Your task to perform on an android device: add a contact Image 0: 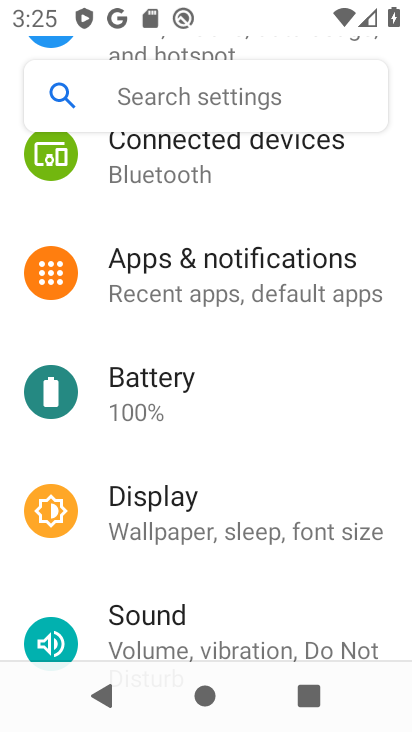
Step 0: press back button
Your task to perform on an android device: add a contact Image 1: 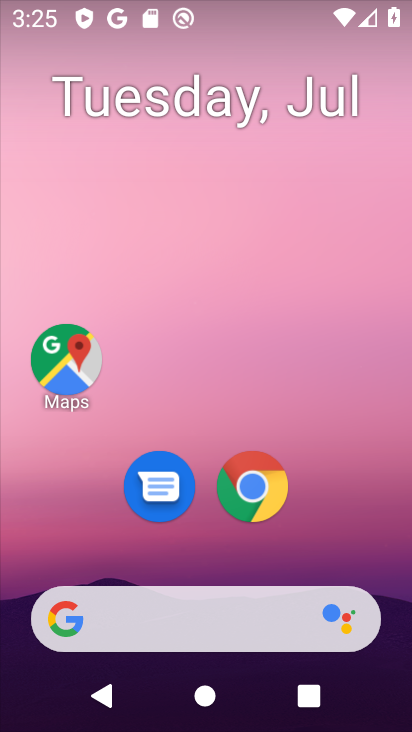
Step 1: drag from (170, 563) to (289, 9)
Your task to perform on an android device: add a contact Image 2: 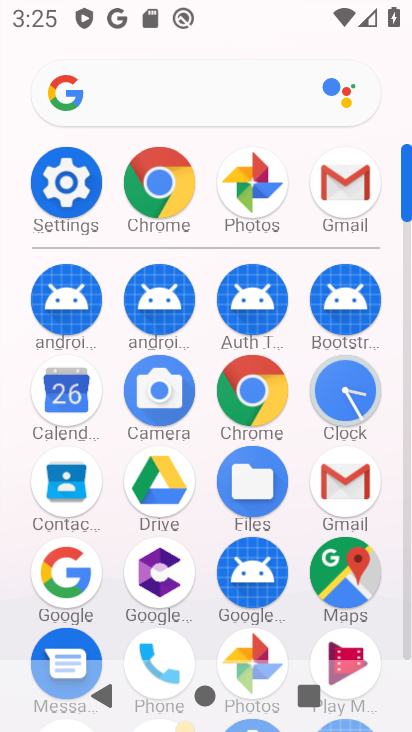
Step 2: click (57, 490)
Your task to perform on an android device: add a contact Image 3: 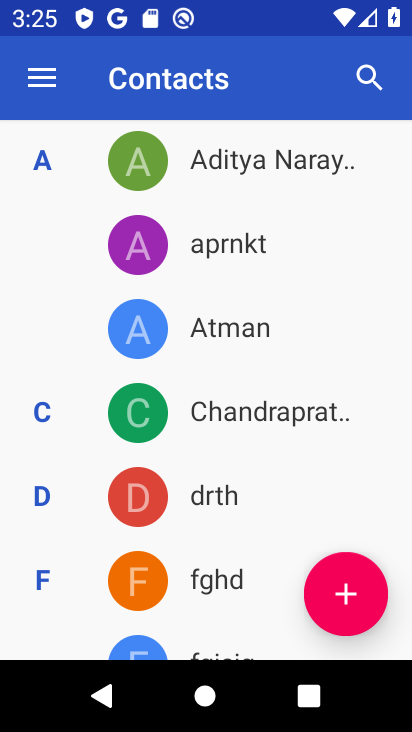
Step 3: click (336, 585)
Your task to perform on an android device: add a contact Image 4: 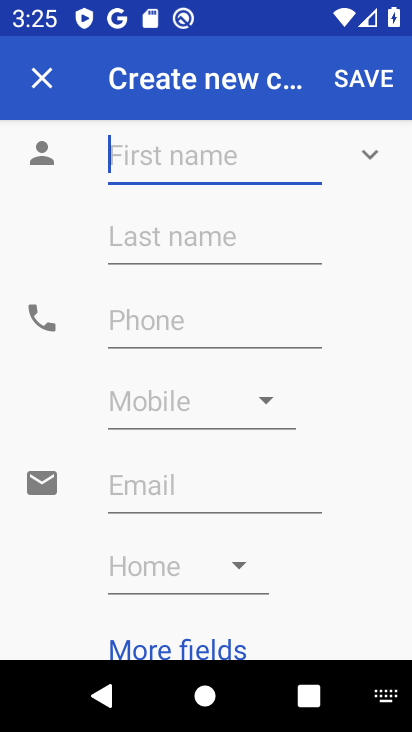
Step 4: click (141, 140)
Your task to perform on an android device: add a contact Image 5: 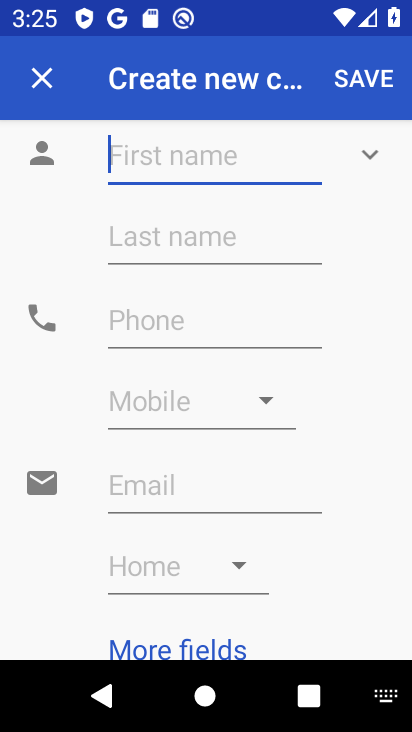
Step 5: type "fbgf"
Your task to perform on an android device: add a contact Image 6: 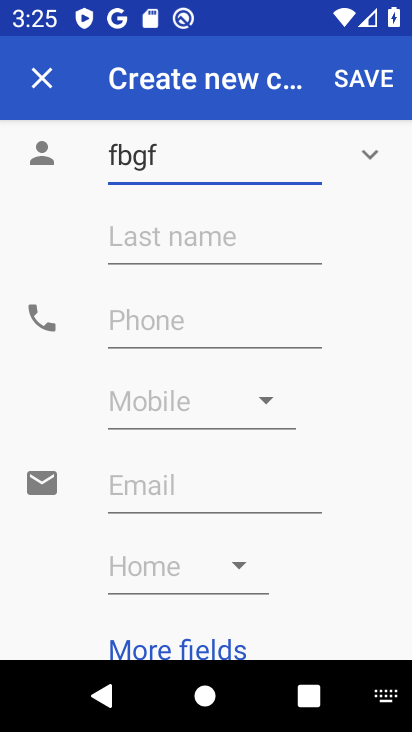
Step 6: click (141, 322)
Your task to perform on an android device: add a contact Image 7: 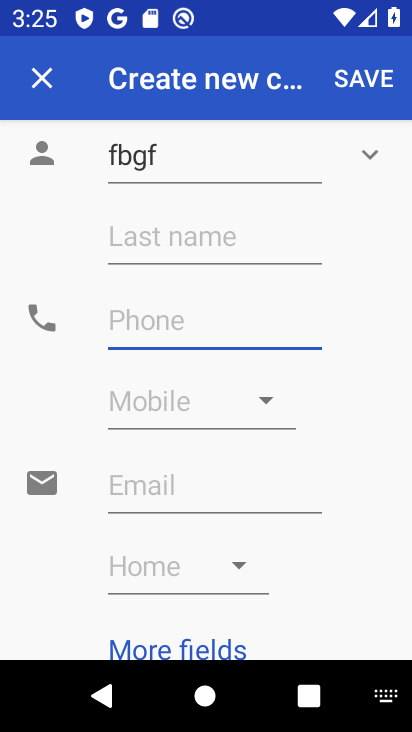
Step 7: type "67575"
Your task to perform on an android device: add a contact Image 8: 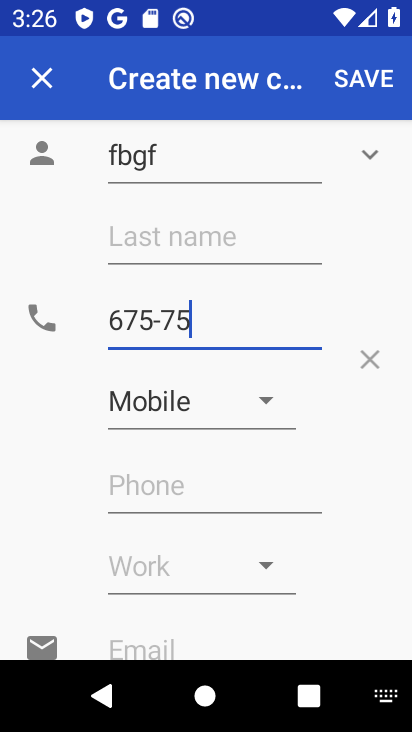
Step 8: click (355, 71)
Your task to perform on an android device: add a contact Image 9: 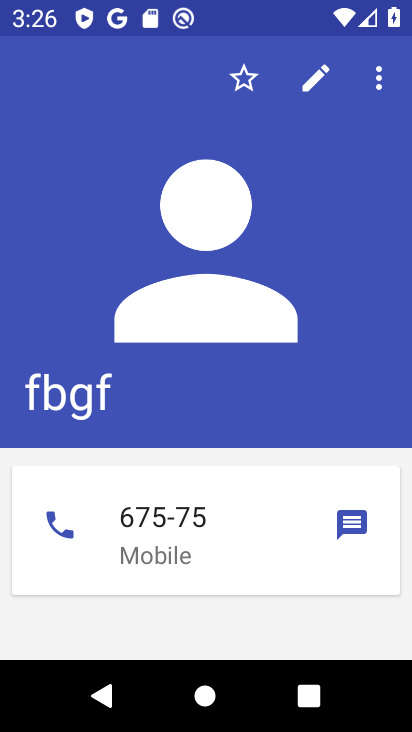
Step 9: task complete